Your task to perform on an android device: Search for sushi restaurants on Maps Image 0: 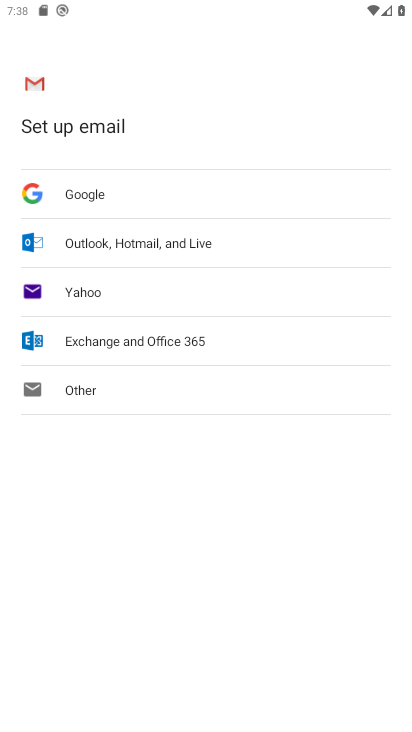
Step 0: press home button
Your task to perform on an android device: Search for sushi restaurants on Maps Image 1: 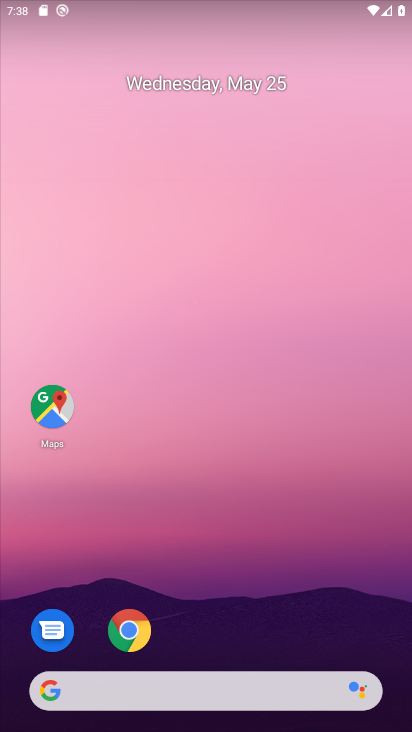
Step 1: click (51, 401)
Your task to perform on an android device: Search for sushi restaurants on Maps Image 2: 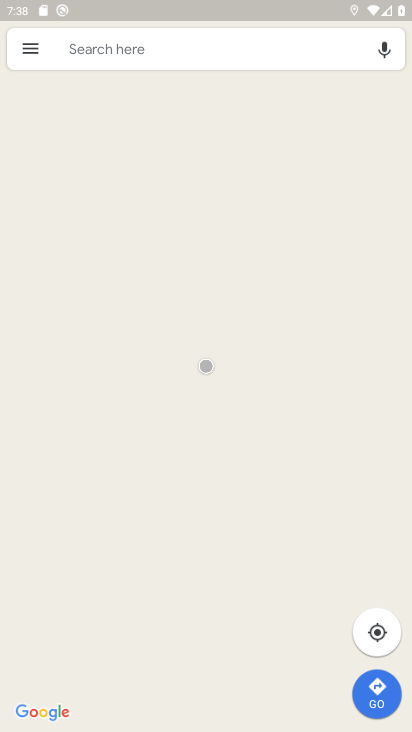
Step 2: click (182, 47)
Your task to perform on an android device: Search for sushi restaurants on Maps Image 3: 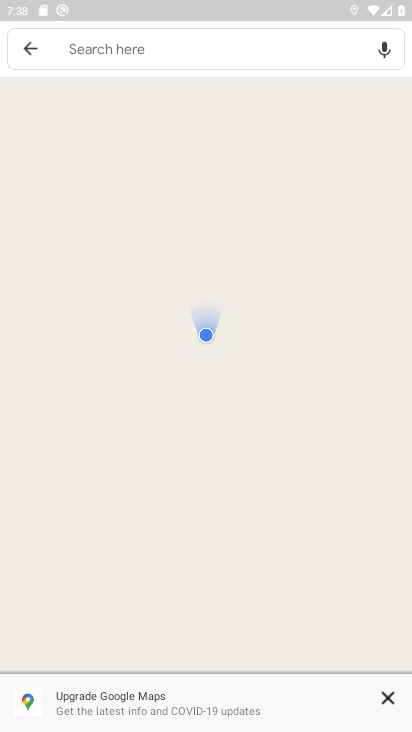
Step 3: click (185, 53)
Your task to perform on an android device: Search for sushi restaurants on Maps Image 4: 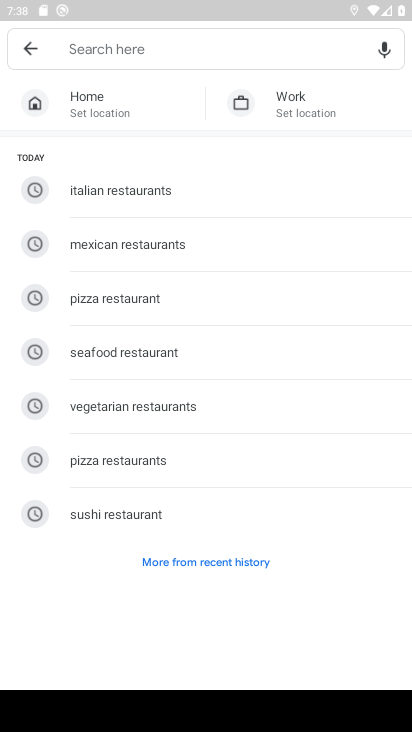
Step 4: click (101, 515)
Your task to perform on an android device: Search for sushi restaurants on Maps Image 5: 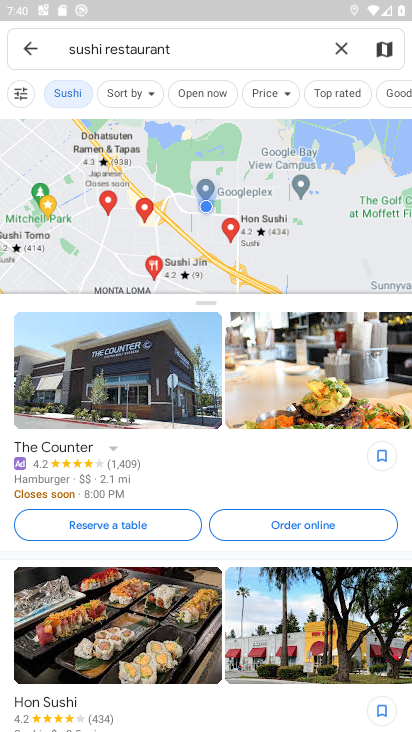
Step 5: task complete